Your task to perform on an android device: check storage Image 0: 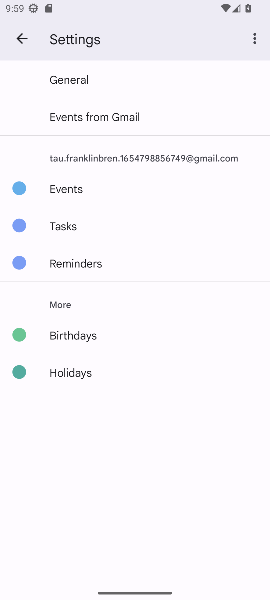
Step 0: press home button
Your task to perform on an android device: check storage Image 1: 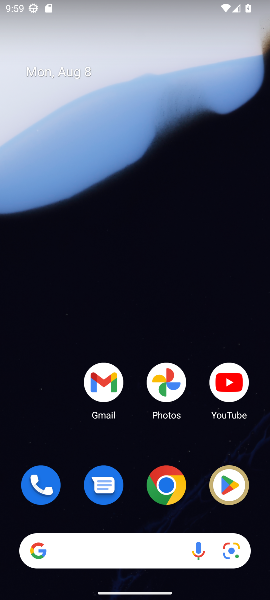
Step 1: drag from (139, 502) to (148, 33)
Your task to perform on an android device: check storage Image 2: 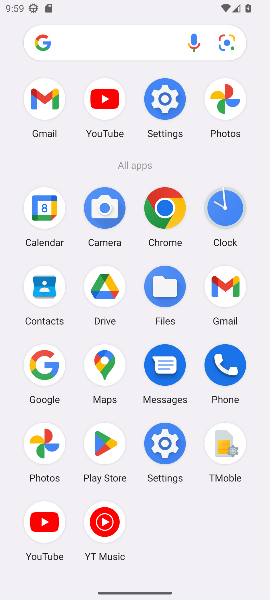
Step 2: click (176, 443)
Your task to perform on an android device: check storage Image 3: 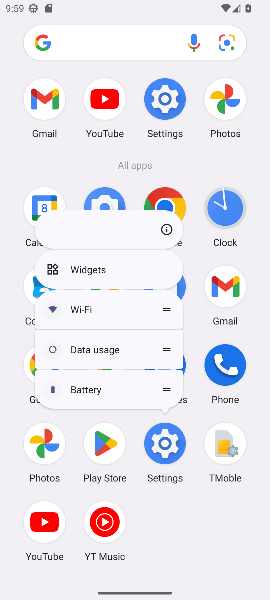
Step 3: click (157, 441)
Your task to perform on an android device: check storage Image 4: 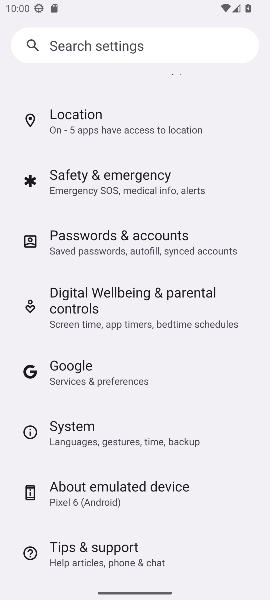
Step 4: drag from (124, 112) to (103, 486)
Your task to perform on an android device: check storage Image 5: 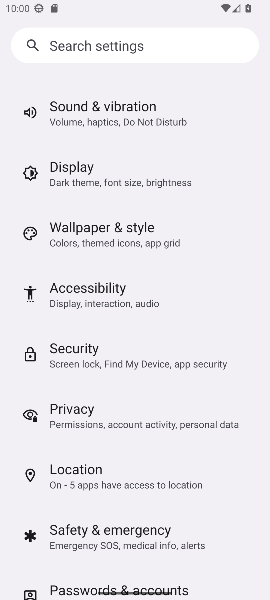
Step 5: drag from (206, 167) to (156, 406)
Your task to perform on an android device: check storage Image 6: 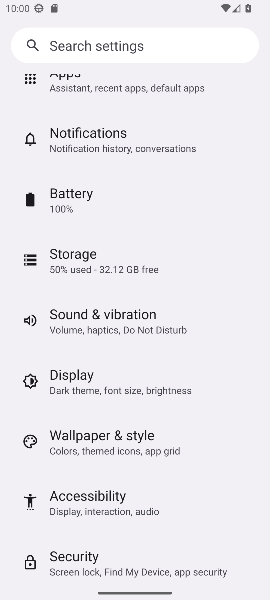
Step 6: click (85, 264)
Your task to perform on an android device: check storage Image 7: 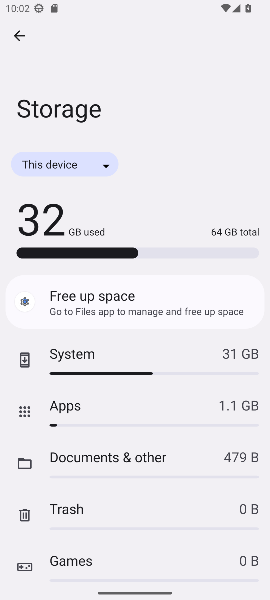
Step 7: task complete